Your task to perform on an android device: Search for sushi restaurants on Maps Image 0: 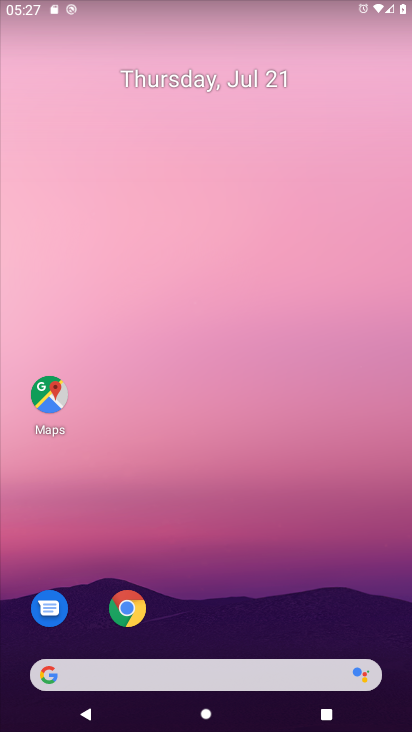
Step 0: drag from (299, 675) to (329, 43)
Your task to perform on an android device: Search for sushi restaurants on Maps Image 1: 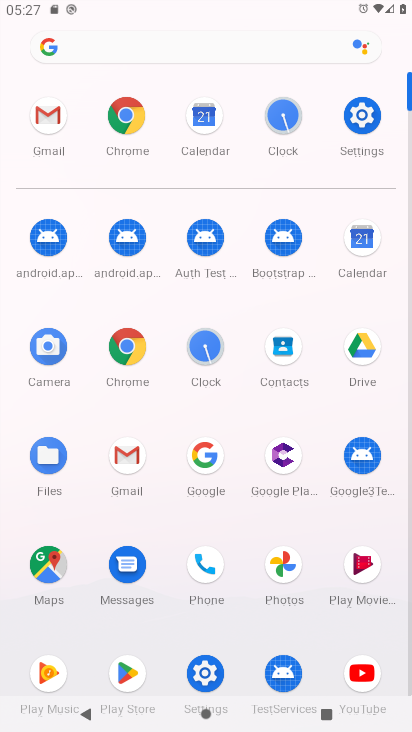
Step 1: click (45, 570)
Your task to perform on an android device: Search for sushi restaurants on Maps Image 2: 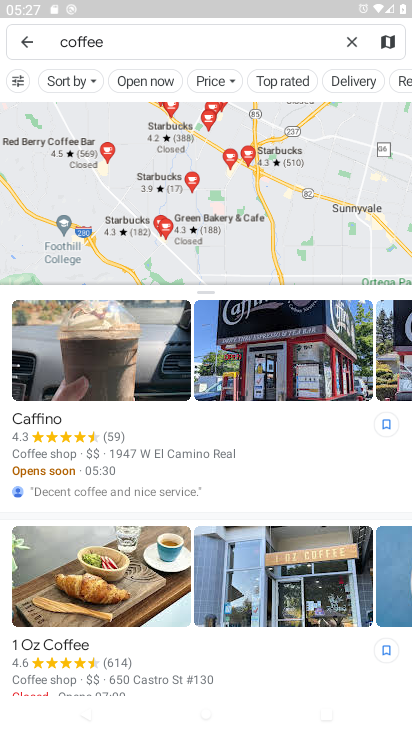
Step 2: click (163, 42)
Your task to perform on an android device: Search for sushi restaurants on Maps Image 3: 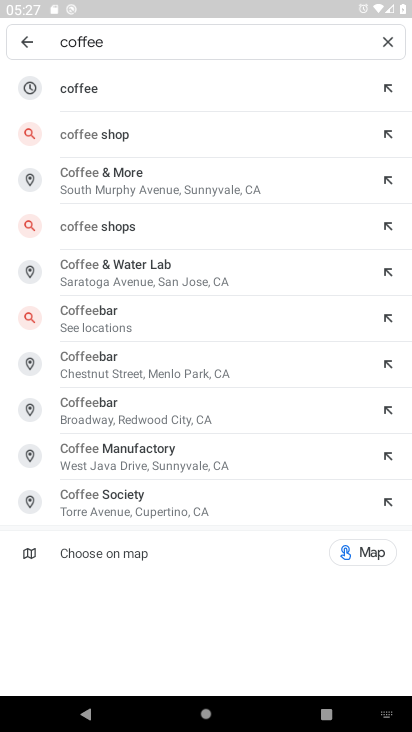
Step 3: click (392, 42)
Your task to perform on an android device: Search for sushi restaurants on Maps Image 4: 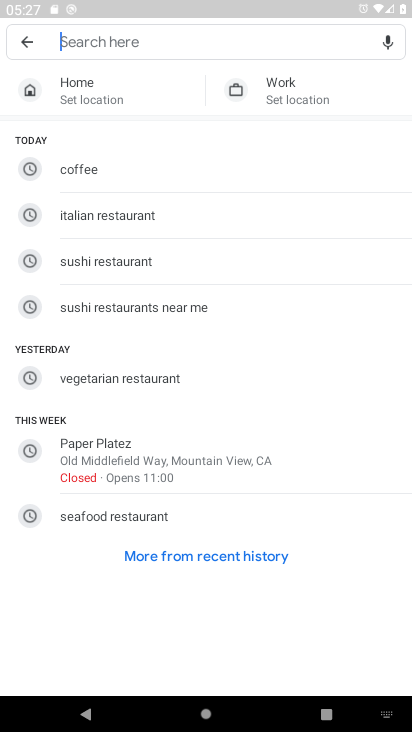
Step 4: click (134, 271)
Your task to perform on an android device: Search for sushi restaurants on Maps Image 5: 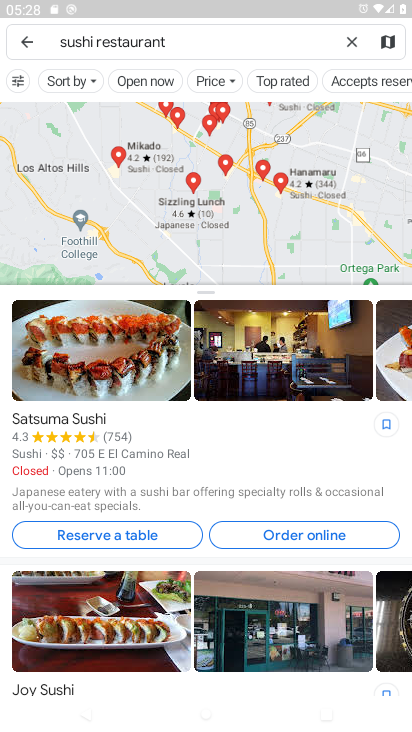
Step 5: task complete